Your task to perform on an android device: change notifications settings Image 0: 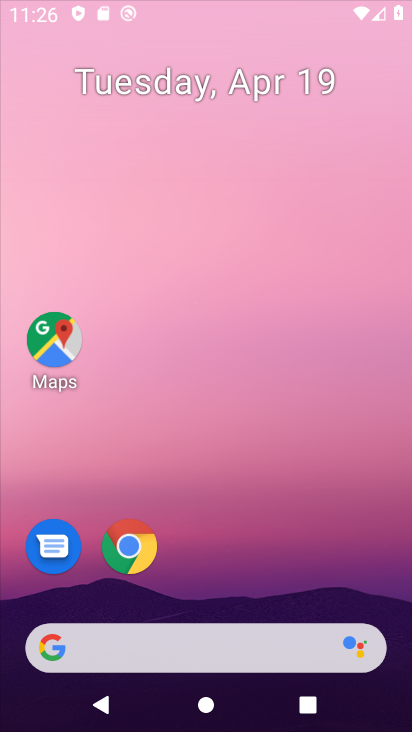
Step 0: drag from (328, 546) to (316, 26)
Your task to perform on an android device: change notifications settings Image 1: 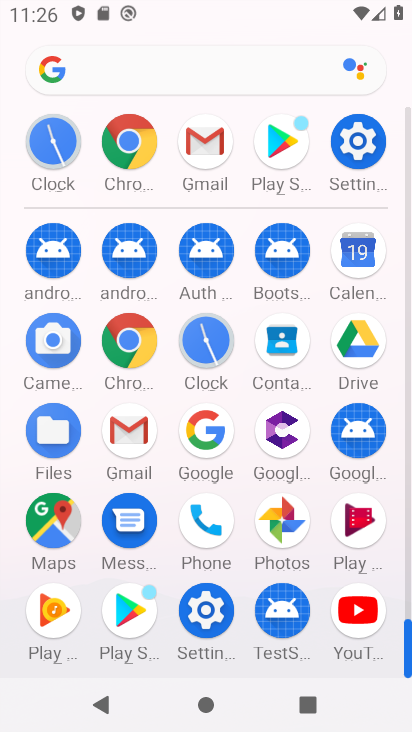
Step 1: drag from (10, 488) to (22, 257)
Your task to perform on an android device: change notifications settings Image 2: 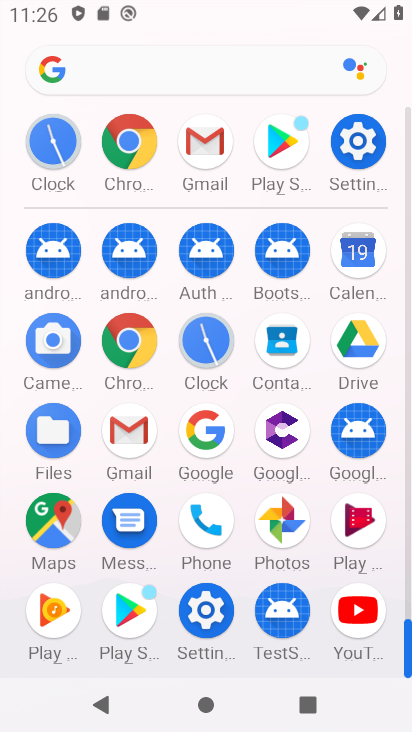
Step 2: click (361, 138)
Your task to perform on an android device: change notifications settings Image 3: 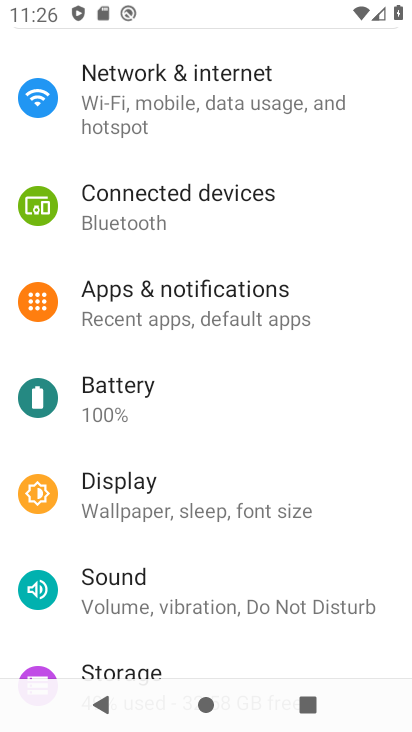
Step 3: click (284, 294)
Your task to perform on an android device: change notifications settings Image 4: 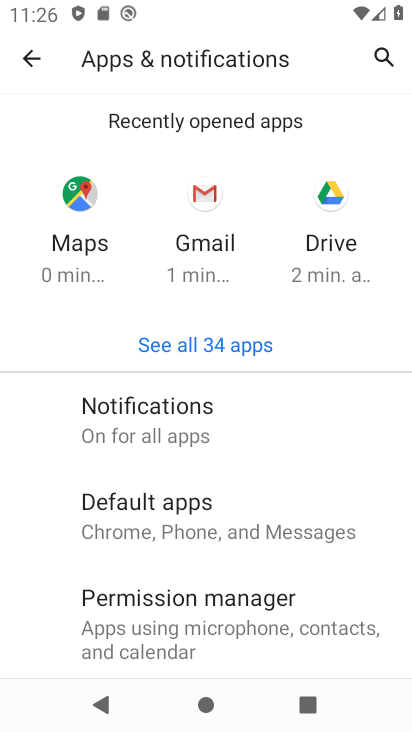
Step 4: click (195, 438)
Your task to perform on an android device: change notifications settings Image 5: 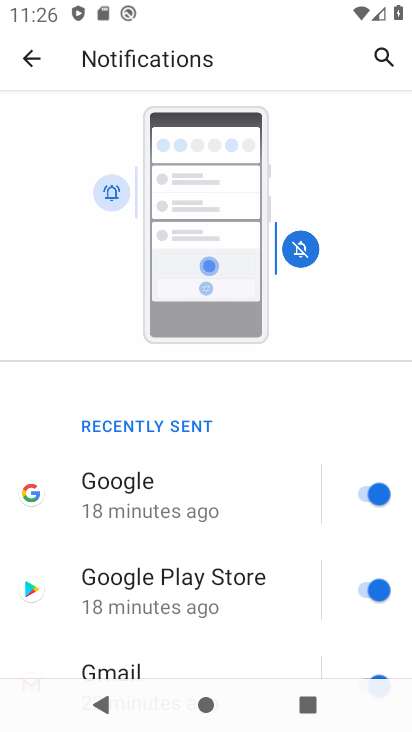
Step 5: drag from (259, 544) to (290, 173)
Your task to perform on an android device: change notifications settings Image 6: 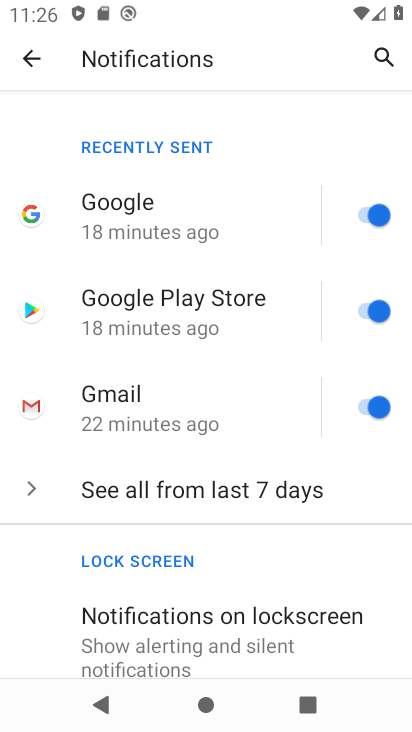
Step 6: drag from (204, 524) to (229, 173)
Your task to perform on an android device: change notifications settings Image 7: 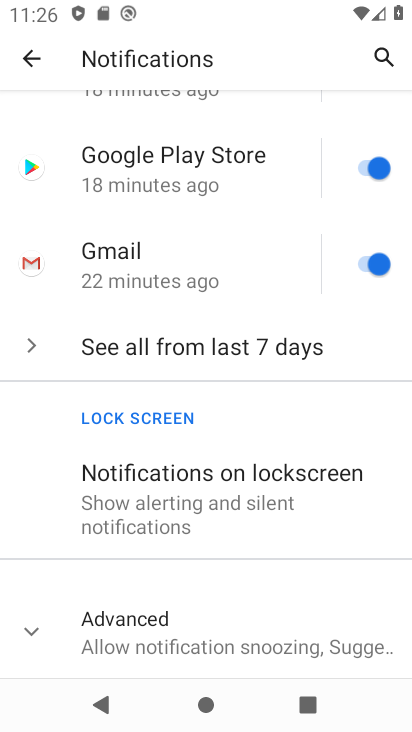
Step 7: click (197, 643)
Your task to perform on an android device: change notifications settings Image 8: 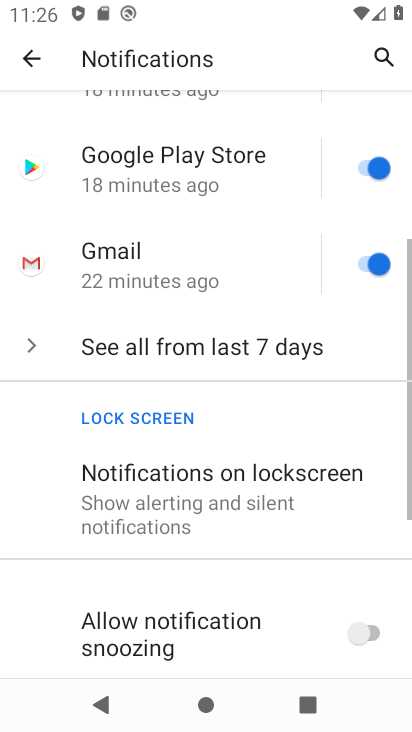
Step 8: drag from (233, 554) to (258, 196)
Your task to perform on an android device: change notifications settings Image 9: 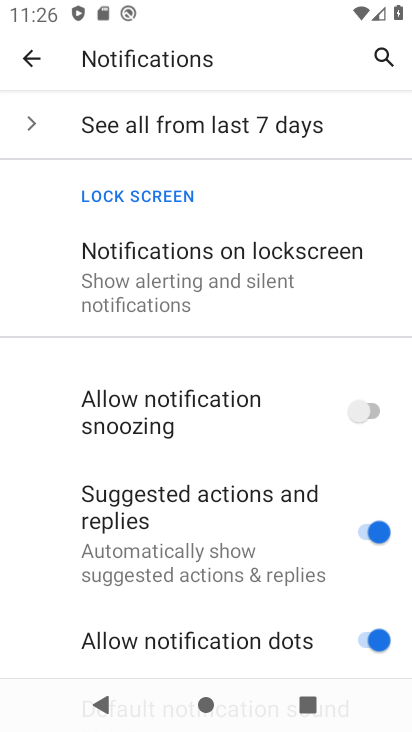
Step 9: drag from (209, 511) to (211, 249)
Your task to perform on an android device: change notifications settings Image 10: 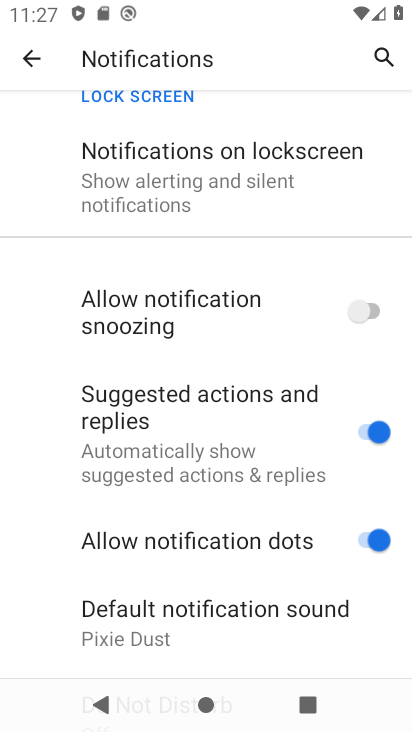
Step 10: click (369, 298)
Your task to perform on an android device: change notifications settings Image 11: 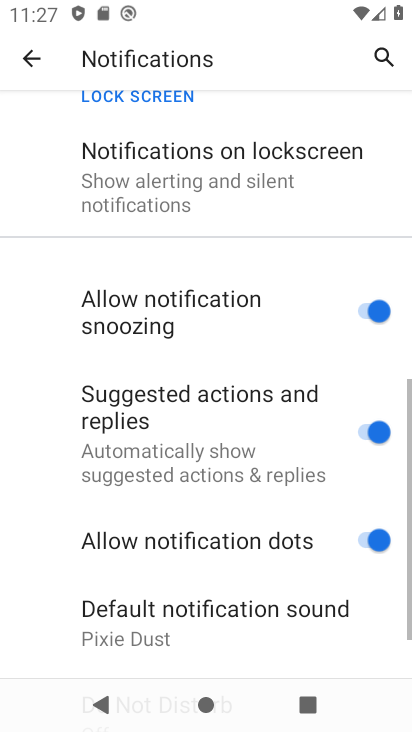
Step 11: click (286, 172)
Your task to perform on an android device: change notifications settings Image 12: 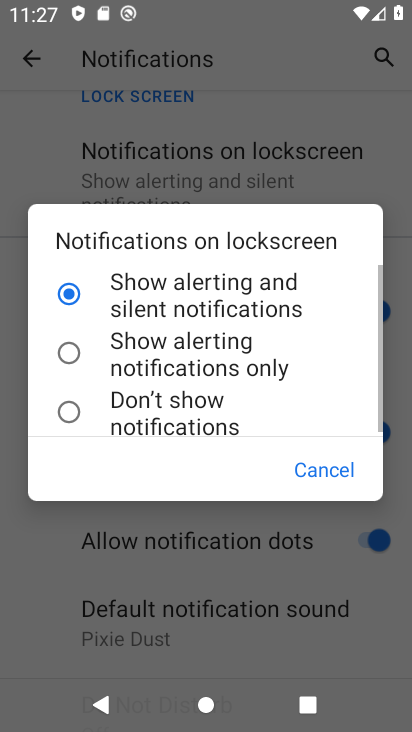
Step 12: click (185, 422)
Your task to perform on an android device: change notifications settings Image 13: 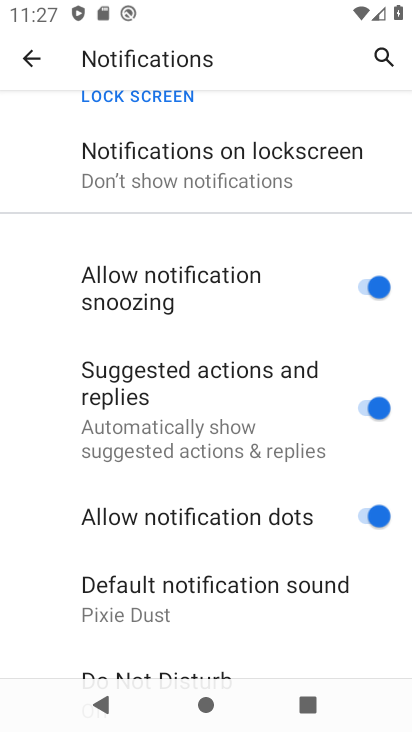
Step 13: task complete